Your task to perform on an android device: Search for a new mascara on Sephora Image 0: 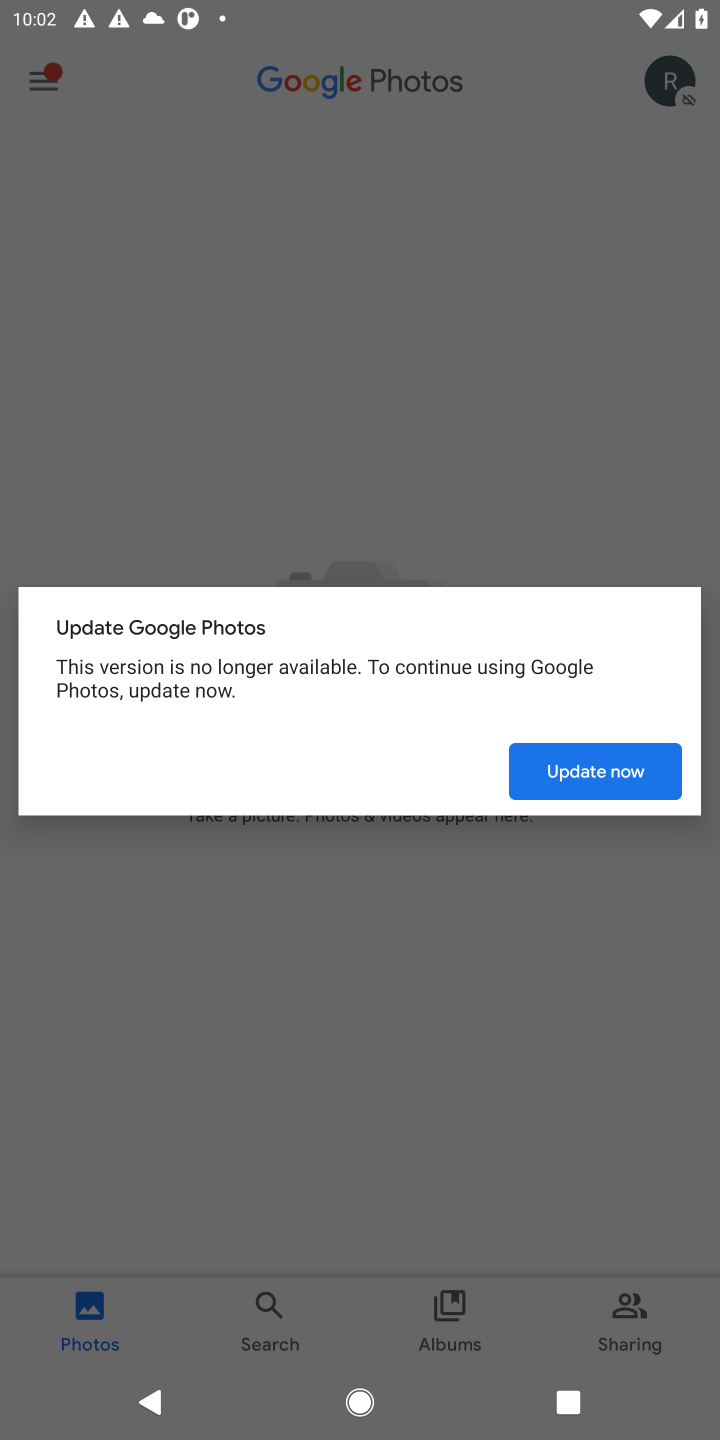
Step 0: press home button
Your task to perform on an android device: Search for a new mascara on Sephora Image 1: 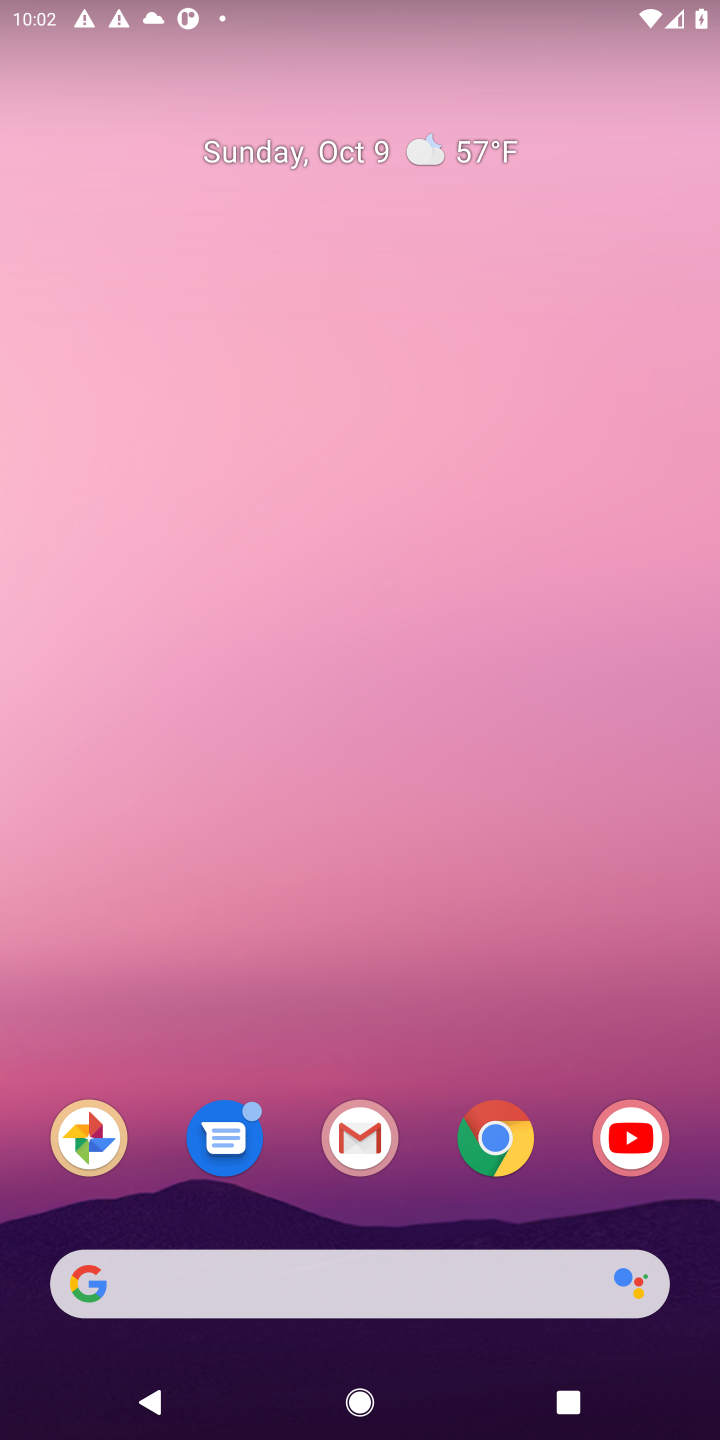
Step 1: click (500, 1129)
Your task to perform on an android device: Search for a new mascara on Sephora Image 2: 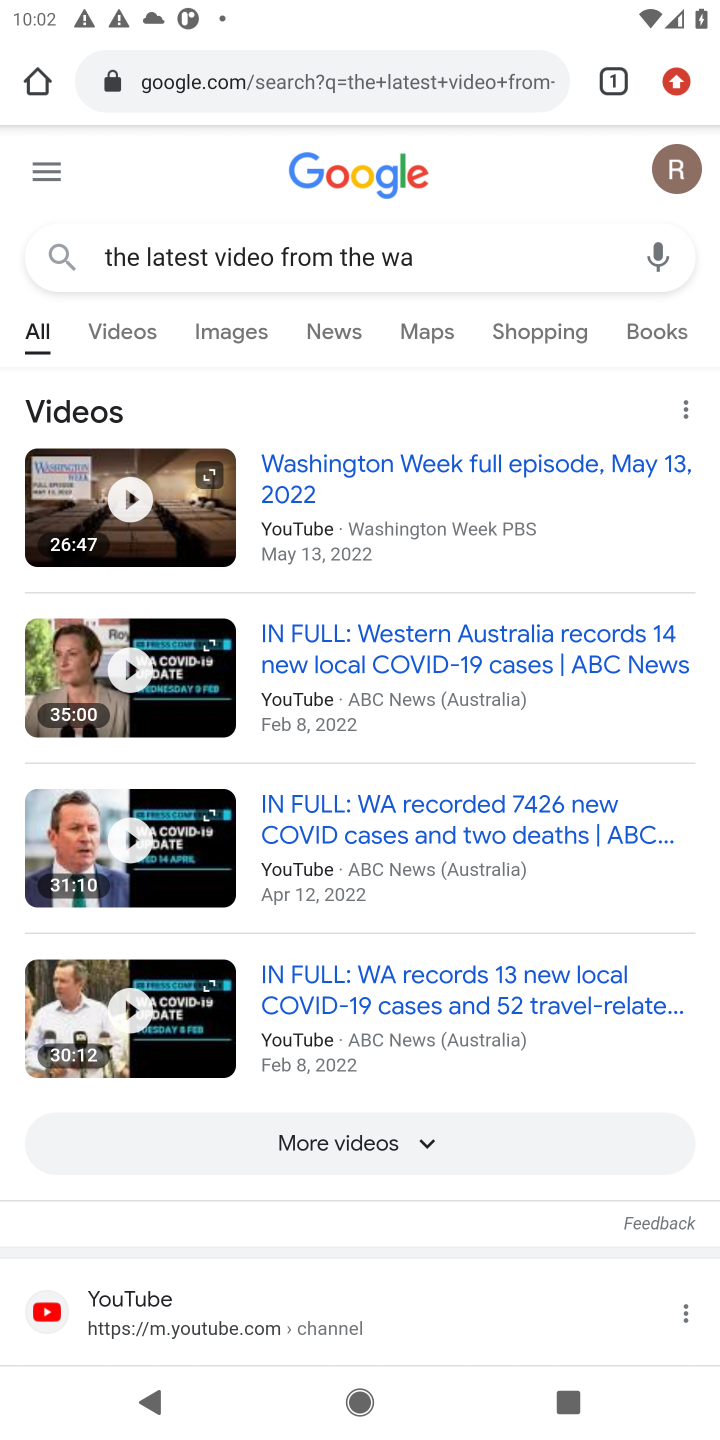
Step 2: click (432, 78)
Your task to perform on an android device: Search for a new mascara on Sephora Image 3: 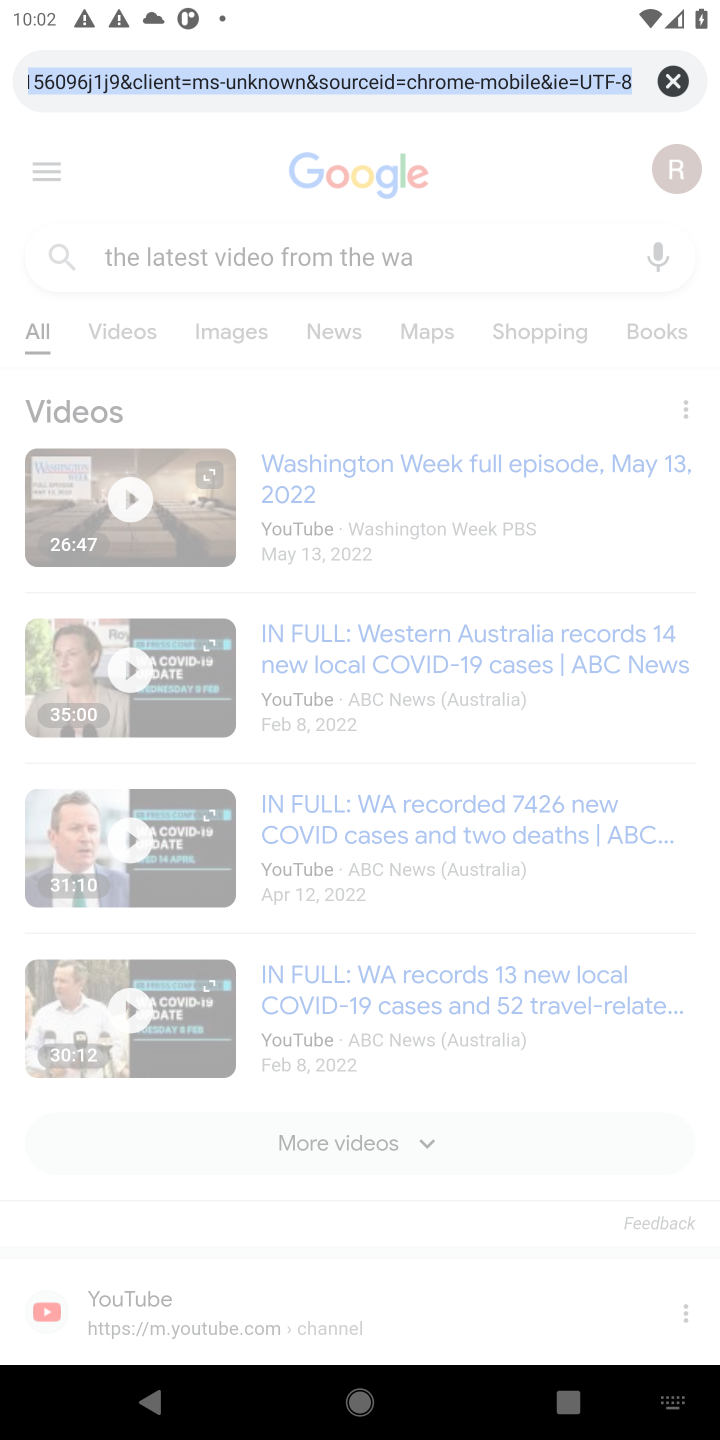
Step 3: click (671, 78)
Your task to perform on an android device: Search for a new mascara on Sephora Image 4: 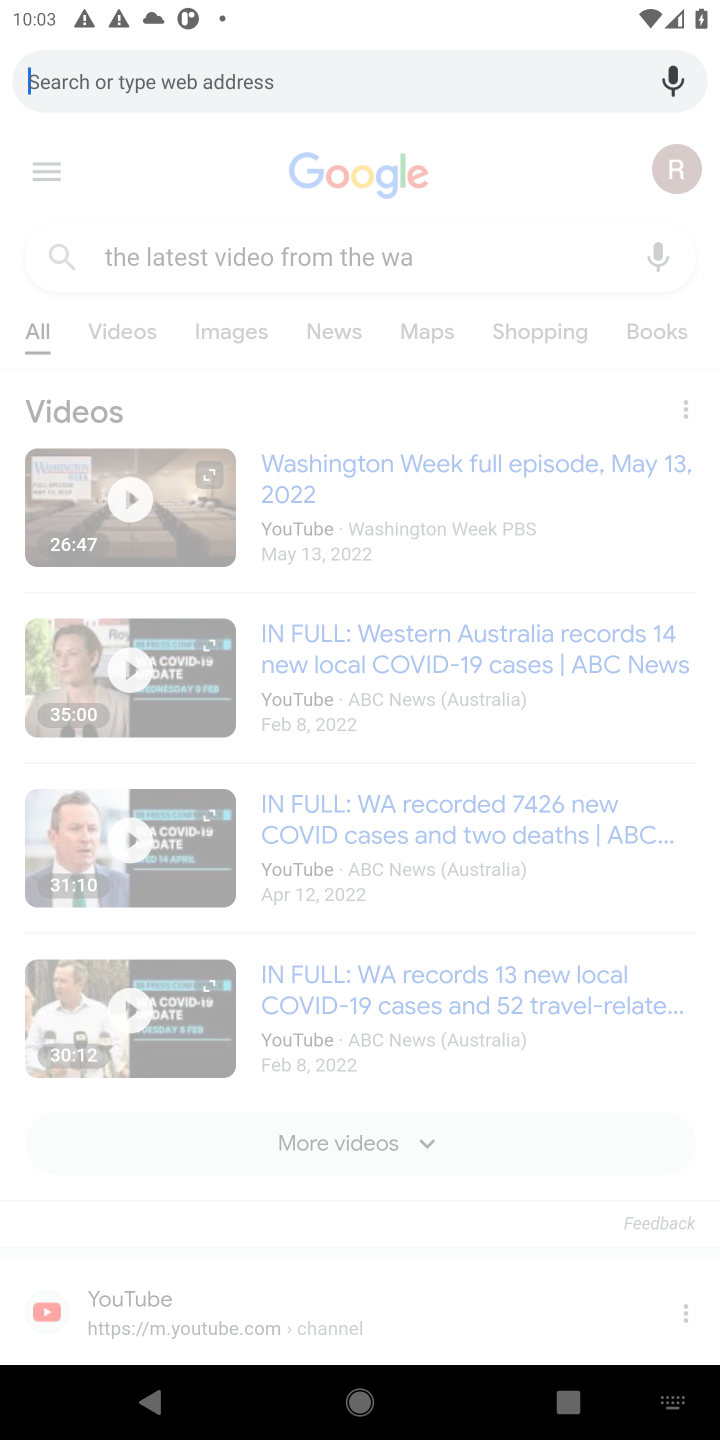
Step 4: type "new mascara on sephora"
Your task to perform on an android device: Search for a new mascara on Sephora Image 5: 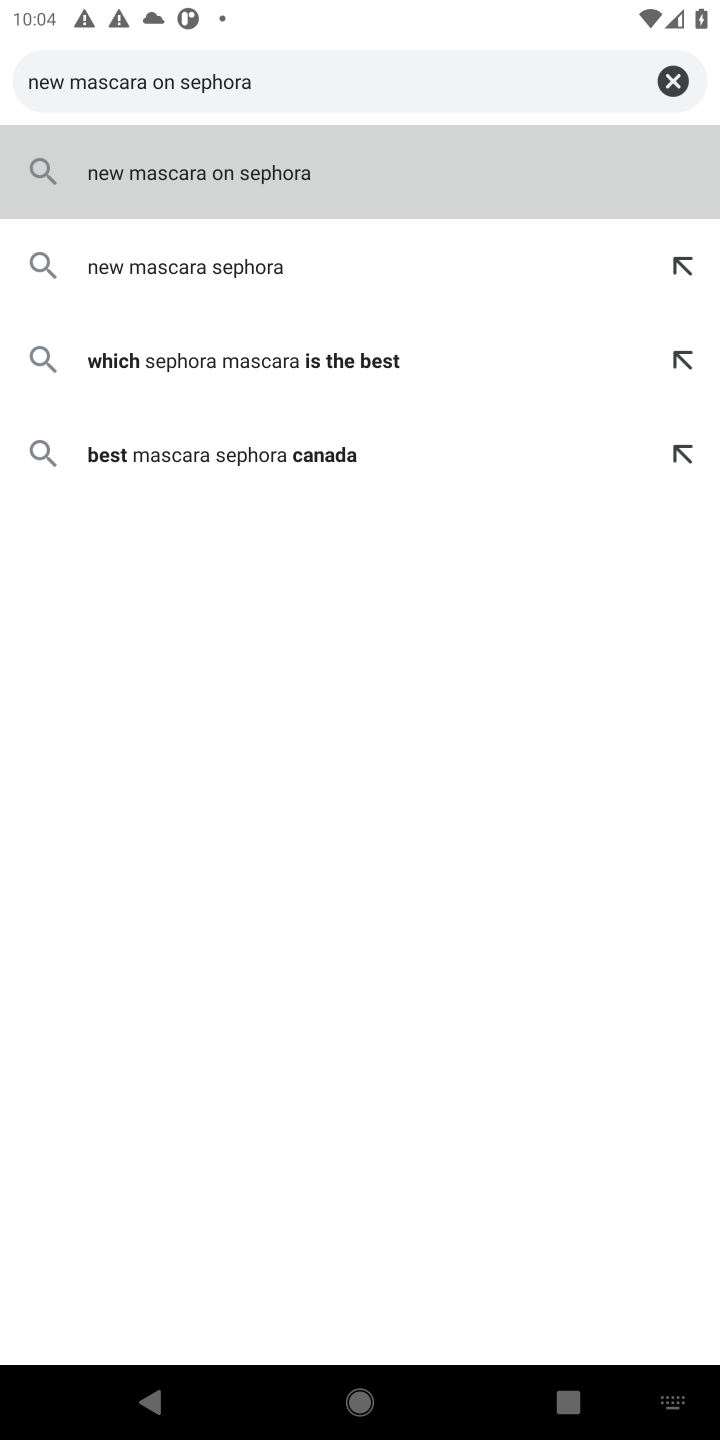
Step 5: click (454, 175)
Your task to perform on an android device: Search for a new mascara on Sephora Image 6: 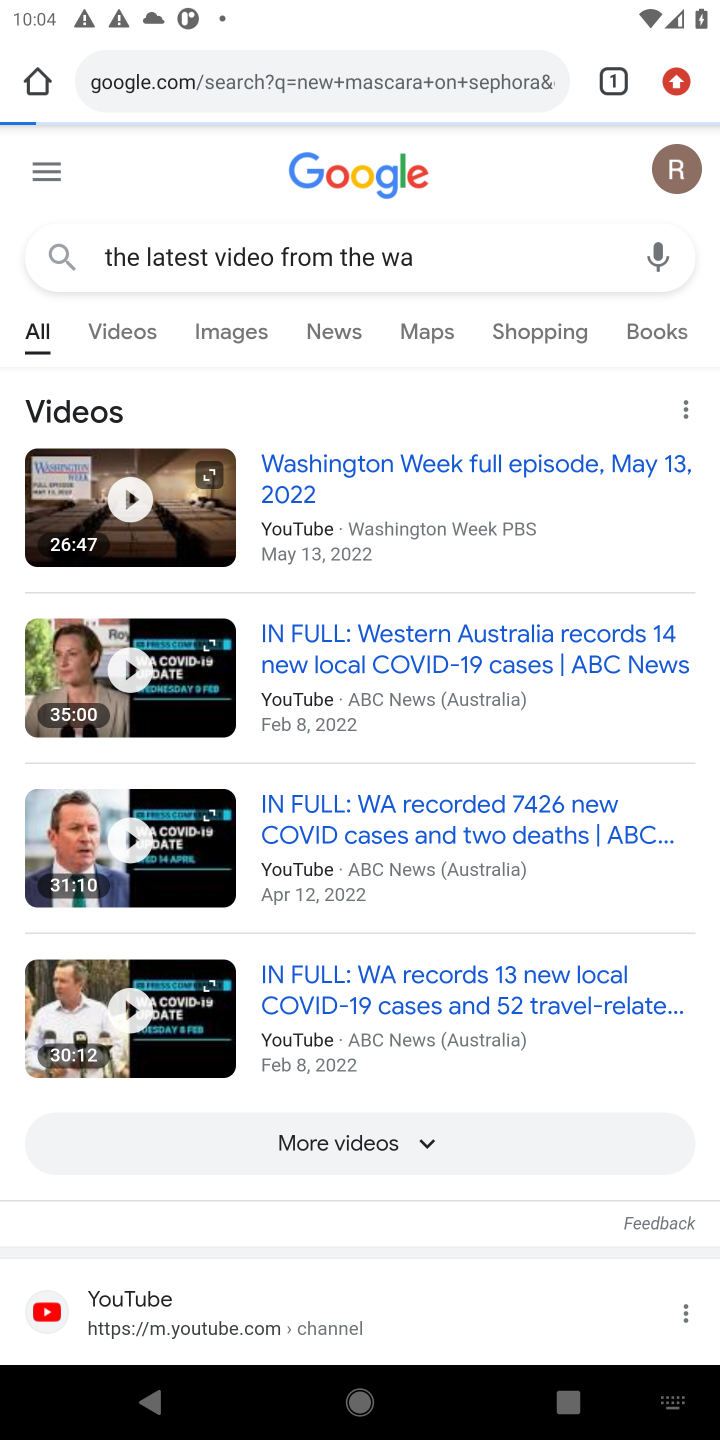
Step 6: task complete